Your task to perform on an android device: Go to Wikipedia Image 0: 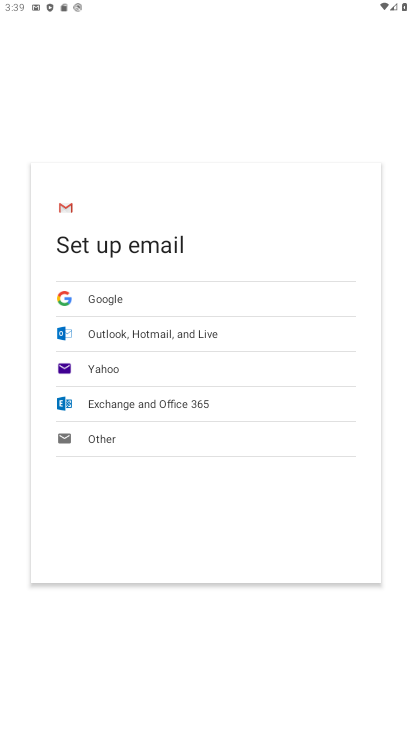
Step 0: press home button
Your task to perform on an android device: Go to Wikipedia Image 1: 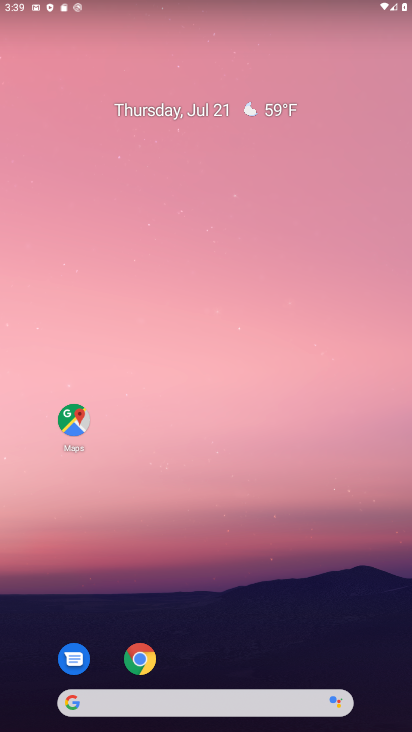
Step 1: drag from (209, 698) to (275, 346)
Your task to perform on an android device: Go to Wikipedia Image 2: 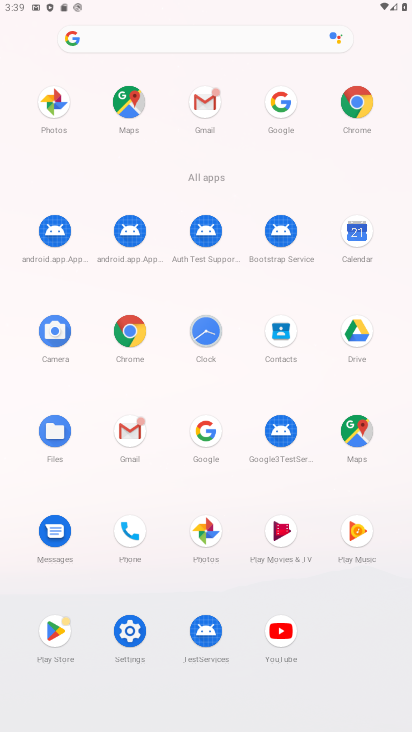
Step 2: click (207, 428)
Your task to perform on an android device: Go to Wikipedia Image 3: 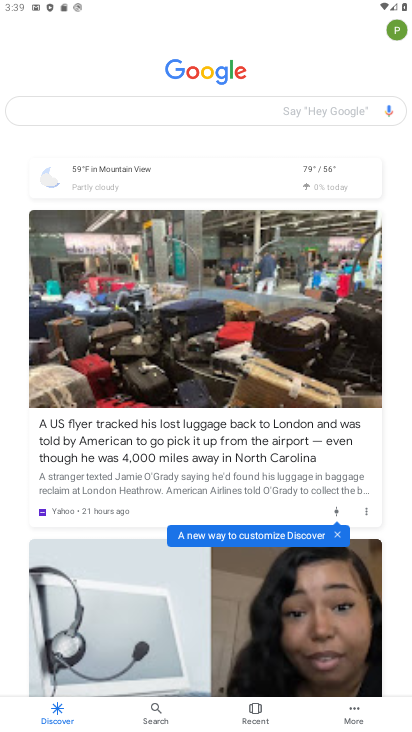
Step 3: click (273, 113)
Your task to perform on an android device: Go to Wikipedia Image 4: 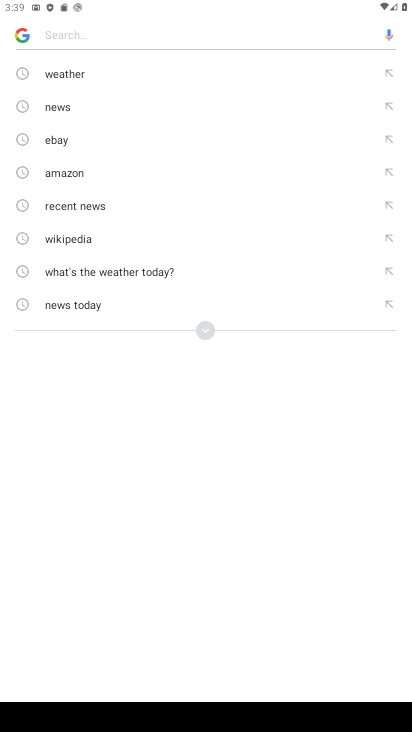
Step 4: type "Wikipedia"
Your task to perform on an android device: Go to Wikipedia Image 5: 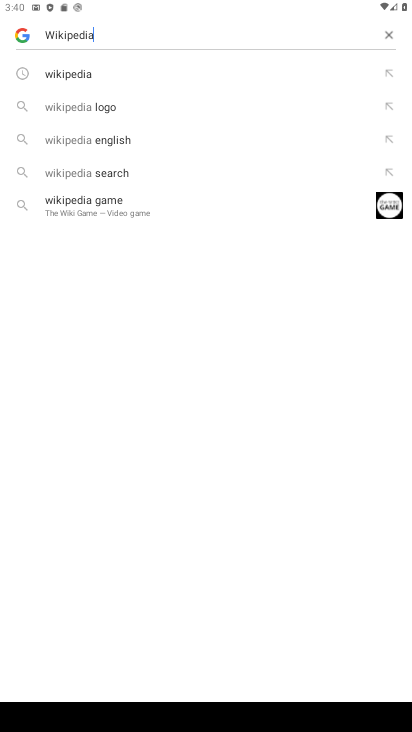
Step 5: click (75, 75)
Your task to perform on an android device: Go to Wikipedia Image 6: 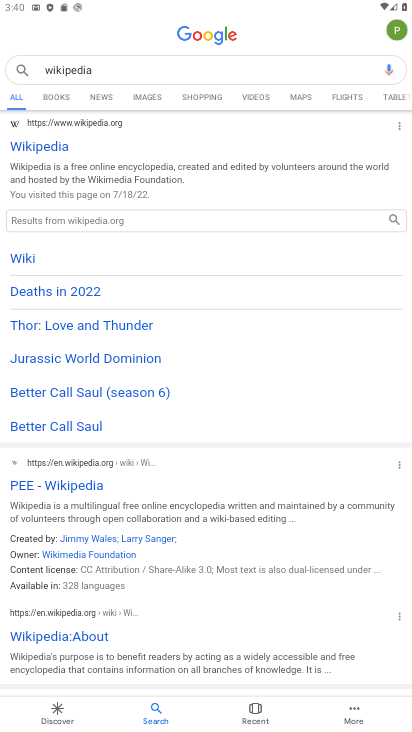
Step 6: click (63, 153)
Your task to perform on an android device: Go to Wikipedia Image 7: 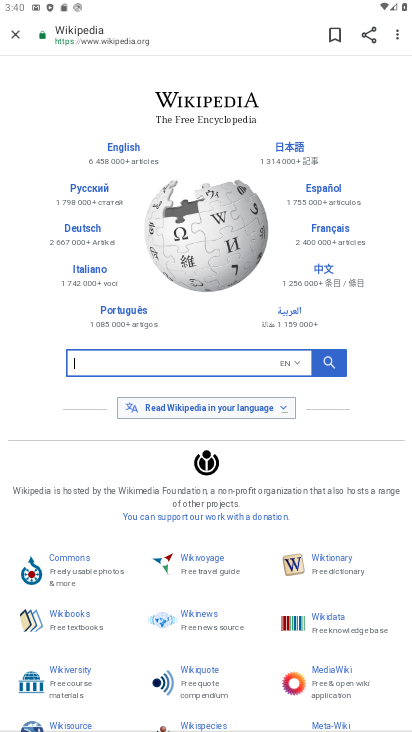
Step 7: task complete